Your task to perform on an android device: Add asus rog to the cart on costco.com Image 0: 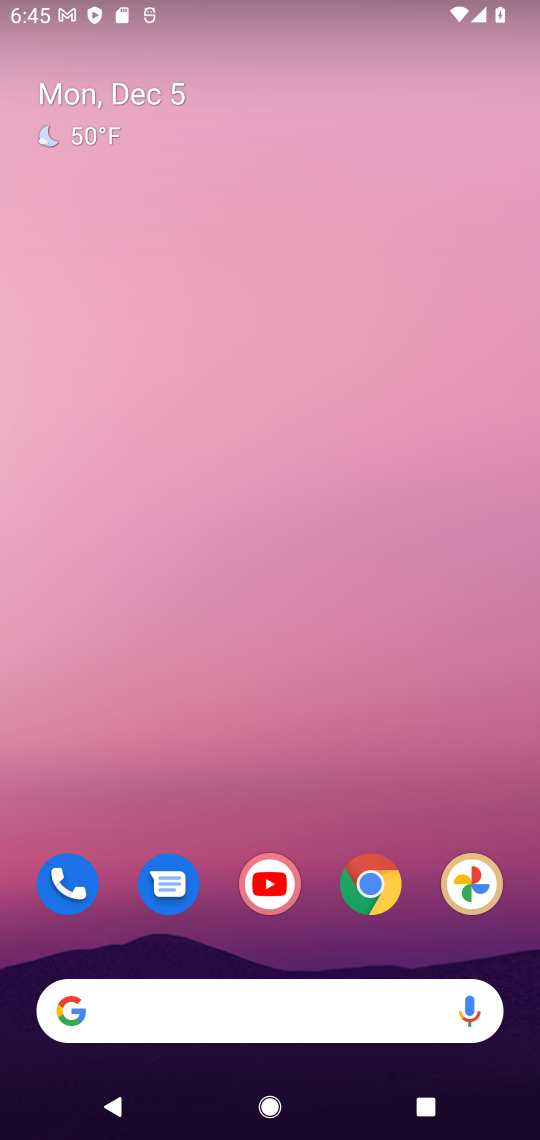
Step 0: click (368, 885)
Your task to perform on an android device: Add asus rog to the cart on costco.com Image 1: 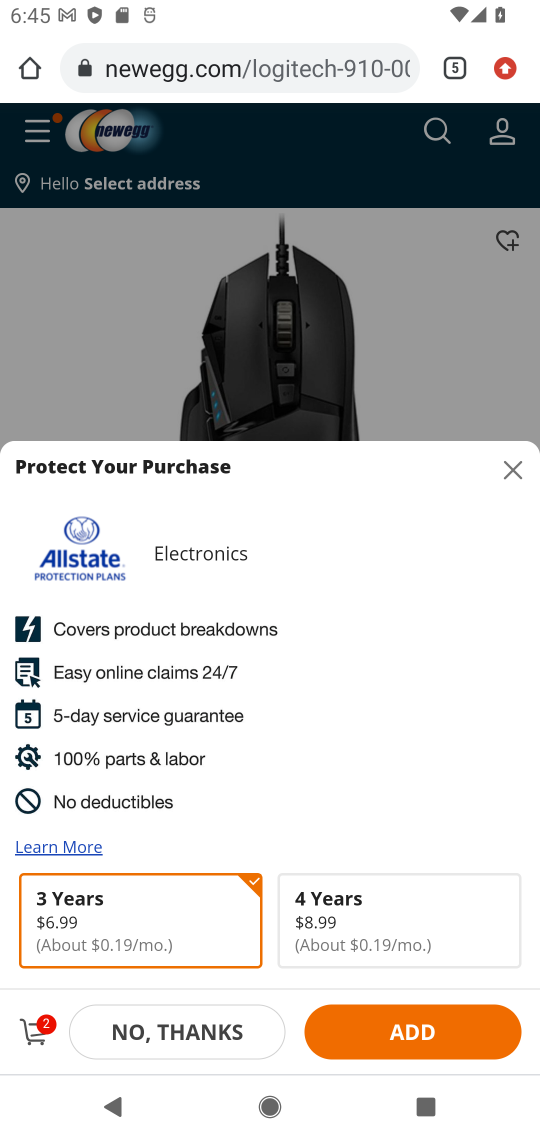
Step 1: click (446, 63)
Your task to perform on an android device: Add asus rog to the cart on costco.com Image 2: 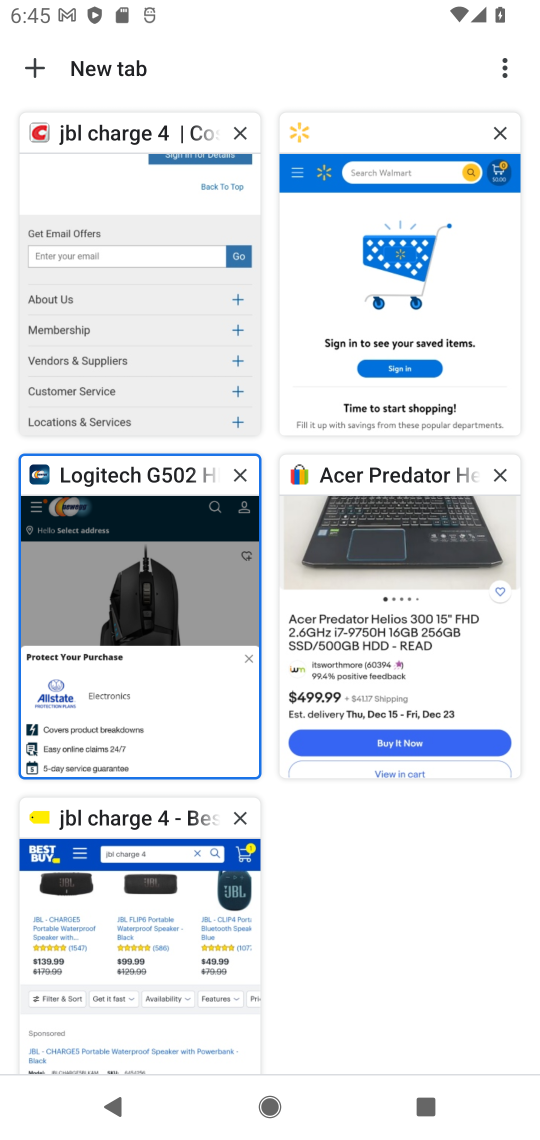
Step 2: click (115, 233)
Your task to perform on an android device: Add asus rog to the cart on costco.com Image 3: 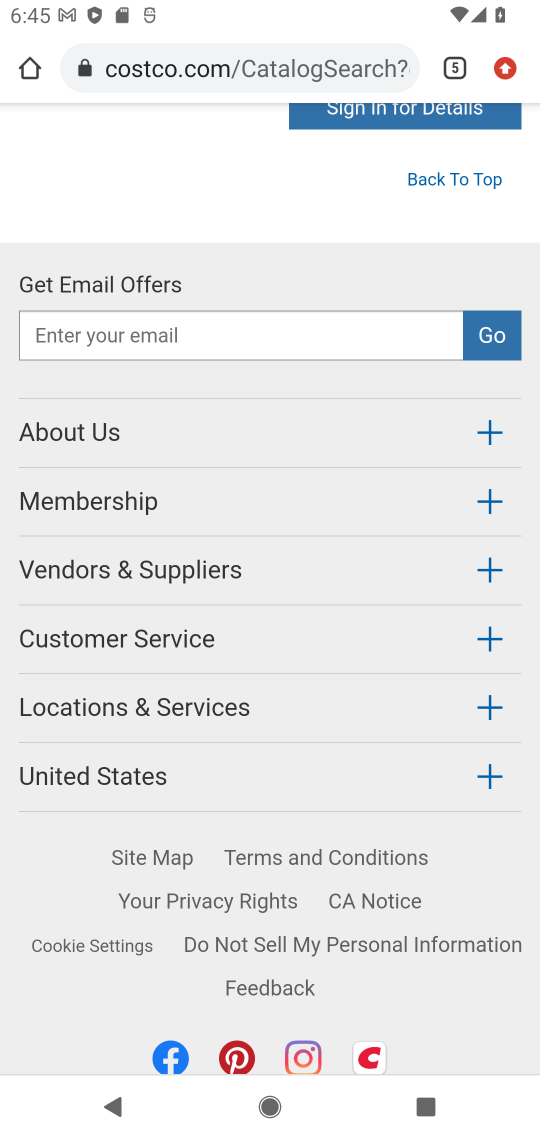
Step 3: drag from (174, 168) to (154, 1060)
Your task to perform on an android device: Add asus rog to the cart on costco.com Image 4: 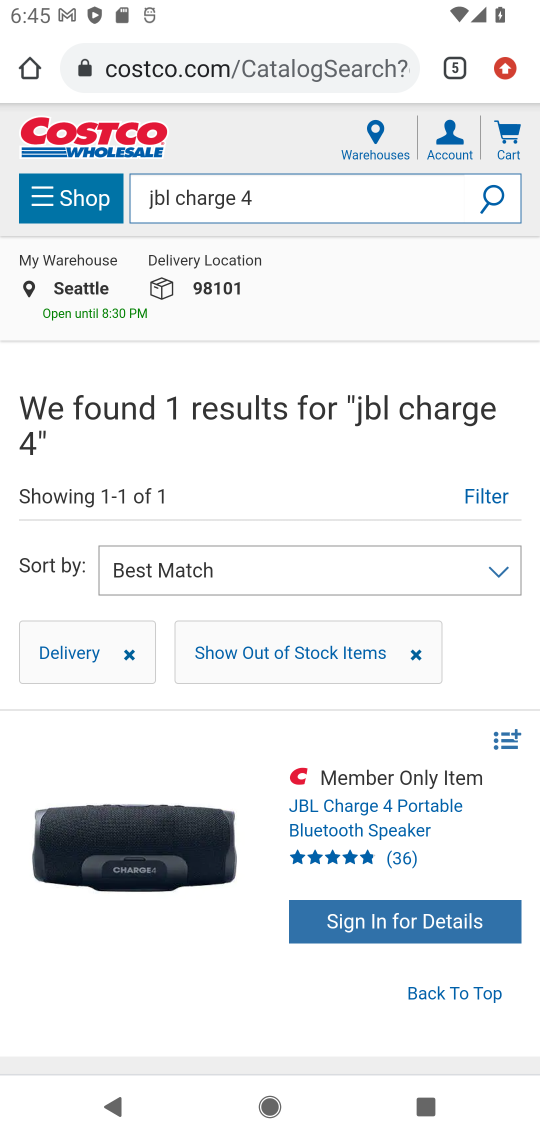
Step 4: click (312, 219)
Your task to perform on an android device: Add asus rog to the cart on costco.com Image 5: 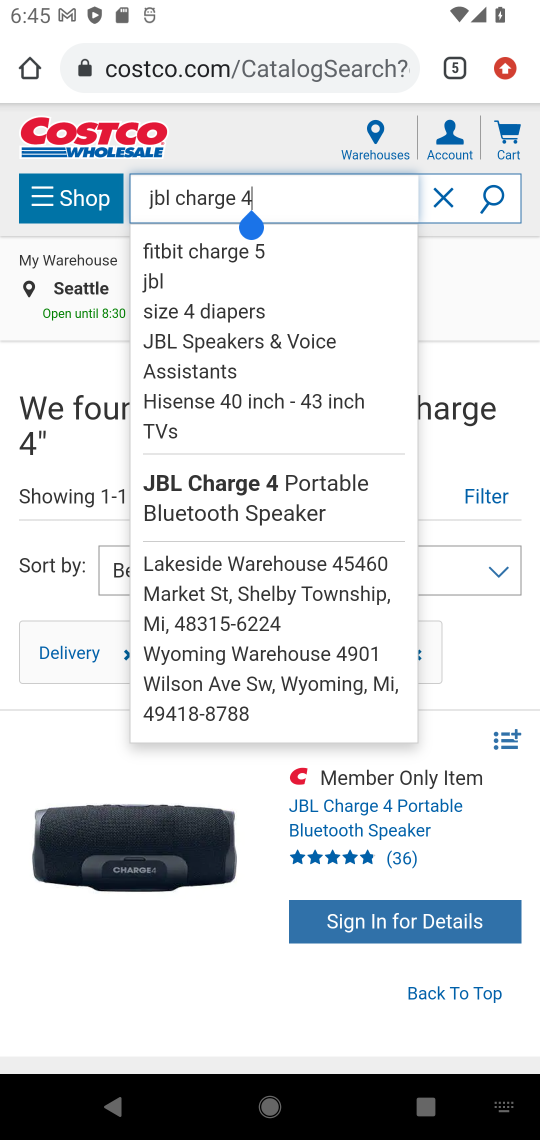
Step 5: click (439, 192)
Your task to perform on an android device: Add asus rog to the cart on costco.com Image 6: 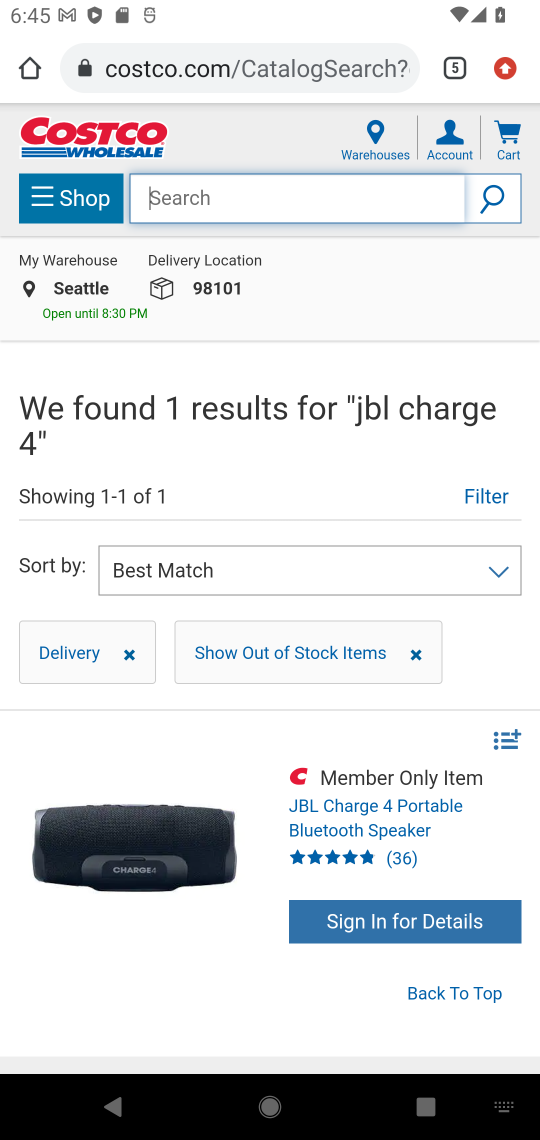
Step 6: type "asus rog"
Your task to perform on an android device: Add asus rog to the cart on costco.com Image 7: 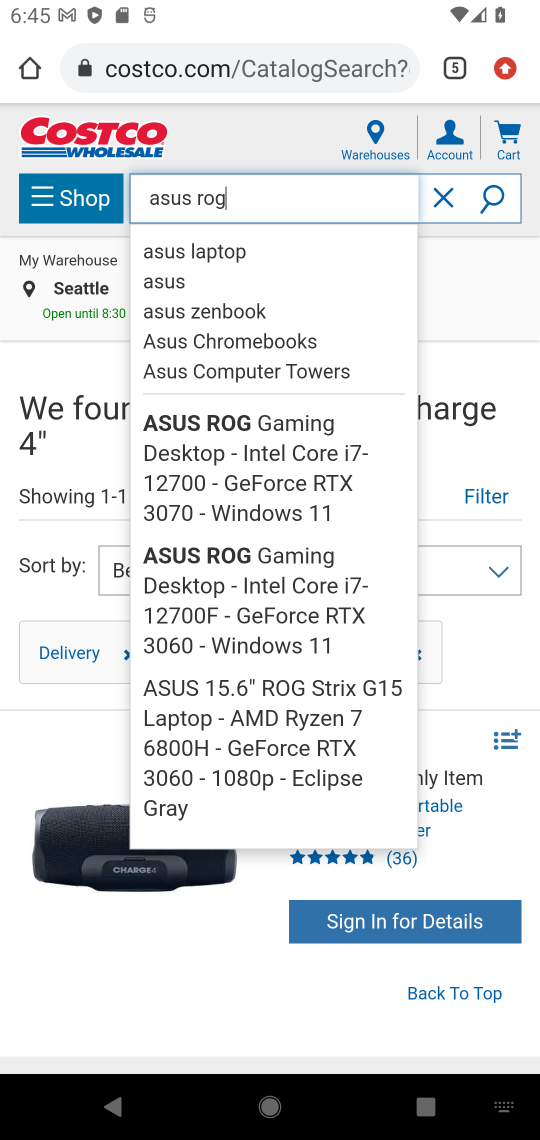
Step 7: click (484, 193)
Your task to perform on an android device: Add asus rog to the cart on costco.com Image 8: 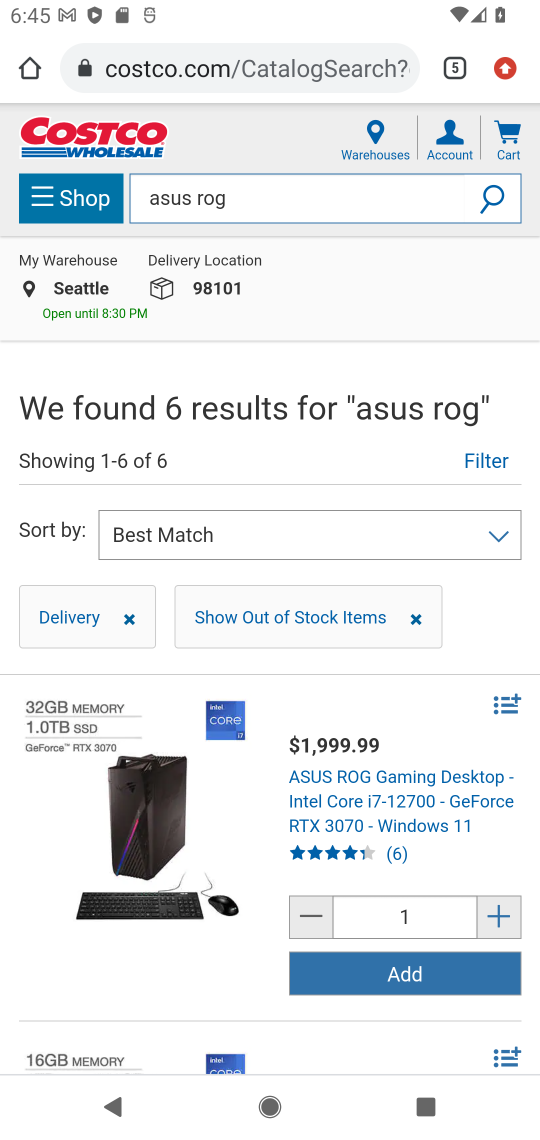
Step 8: click (385, 982)
Your task to perform on an android device: Add asus rog to the cart on costco.com Image 9: 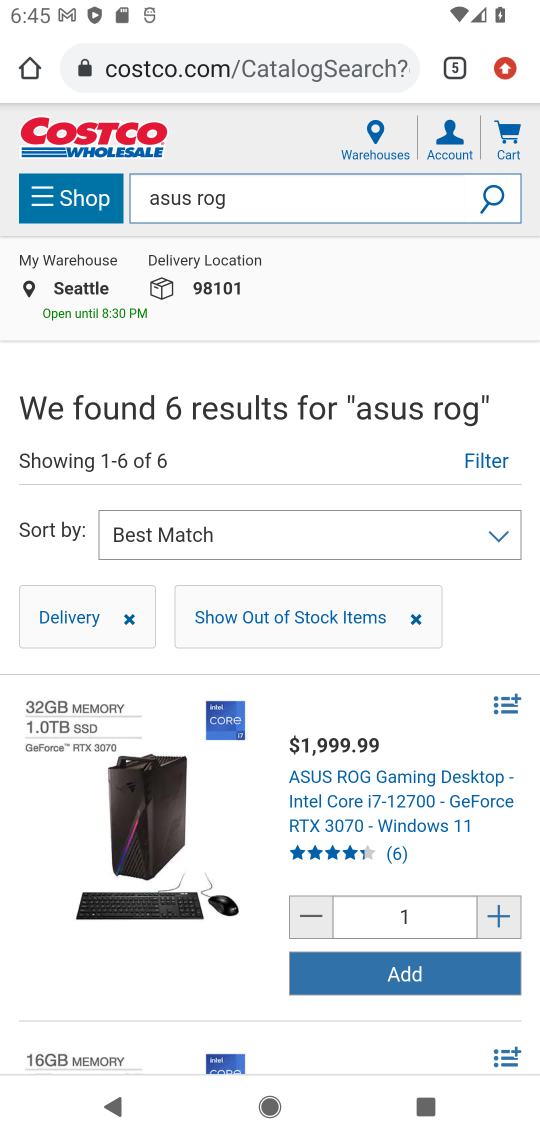
Step 9: task complete